Your task to perform on an android device: Go to settings Image 0: 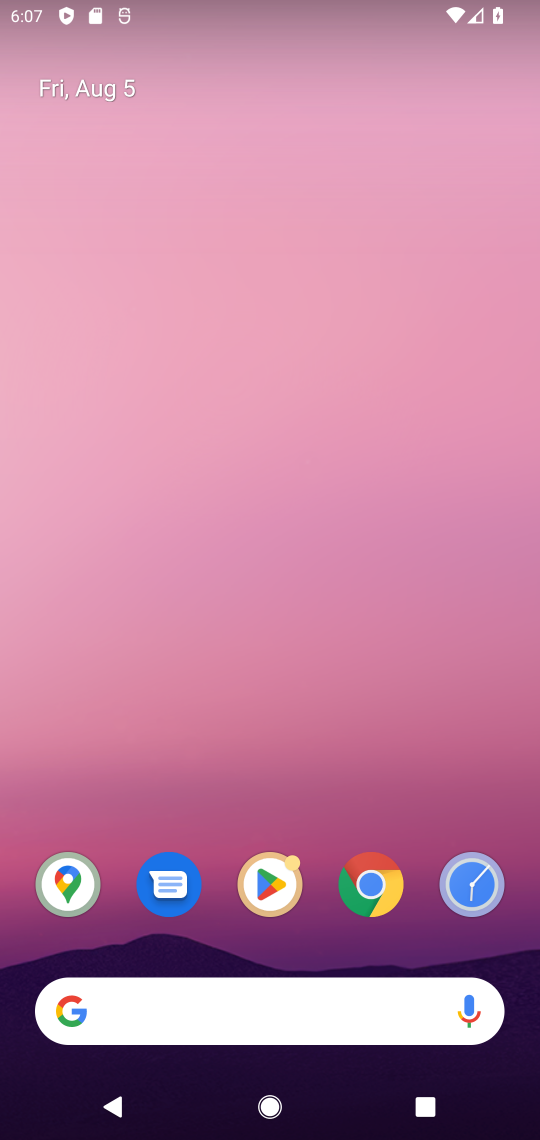
Step 0: press home button
Your task to perform on an android device: Go to settings Image 1: 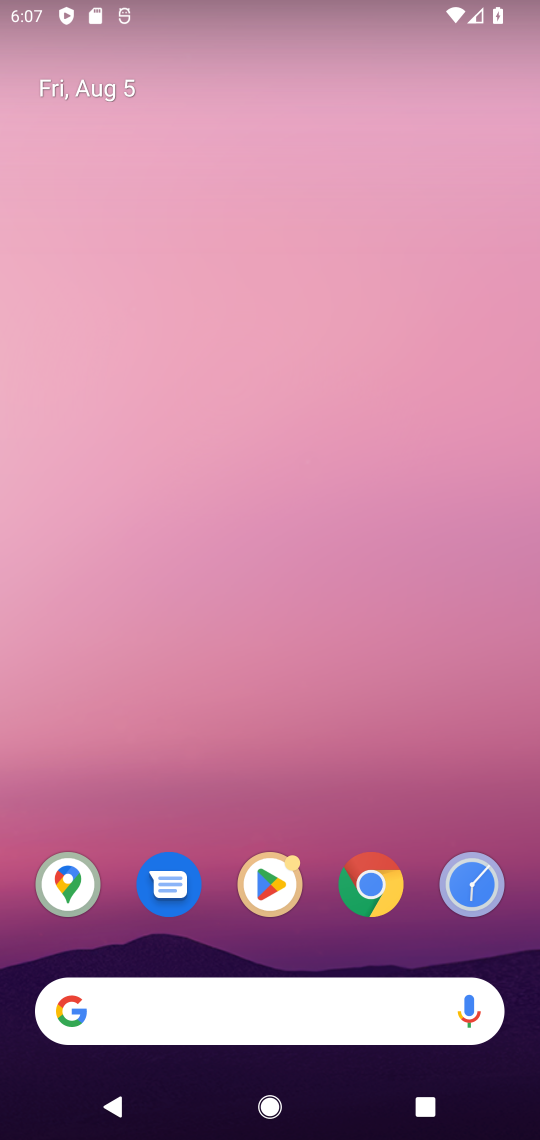
Step 1: drag from (330, 939) to (311, 174)
Your task to perform on an android device: Go to settings Image 2: 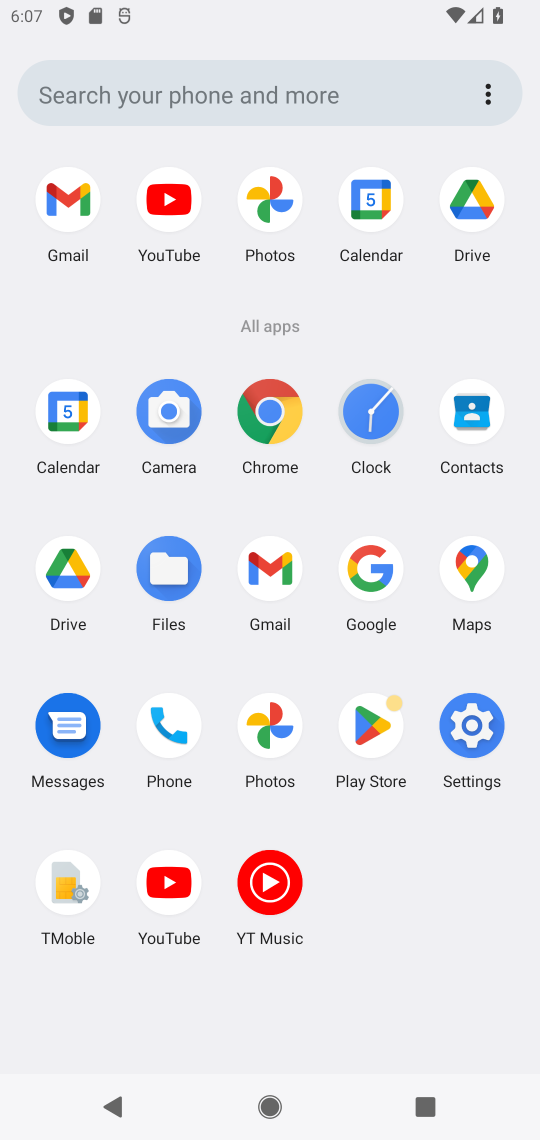
Step 2: click (468, 721)
Your task to perform on an android device: Go to settings Image 3: 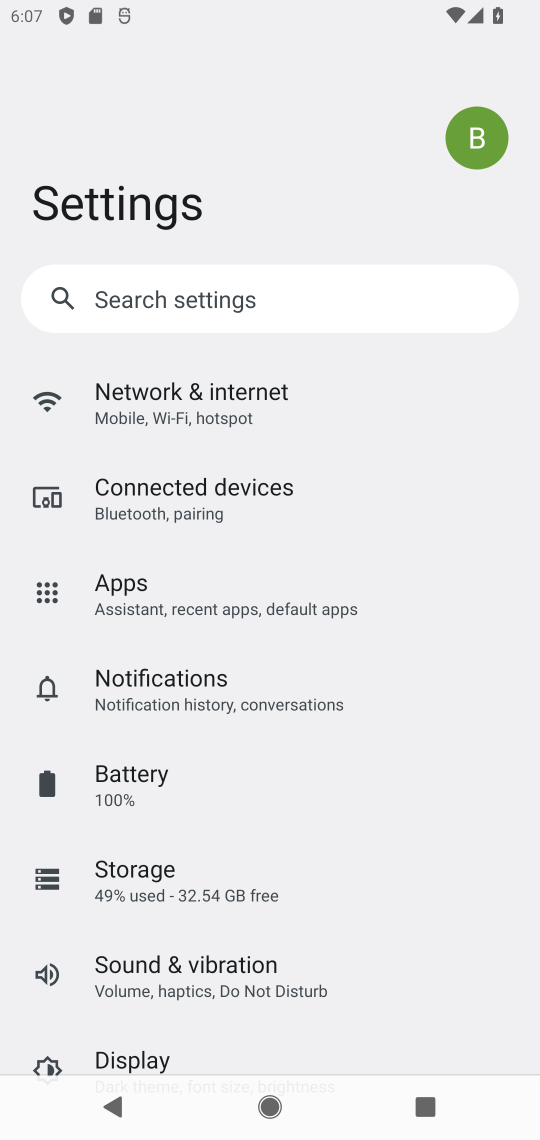
Step 3: task complete